Your task to perform on an android device: Open accessibility settings Image 0: 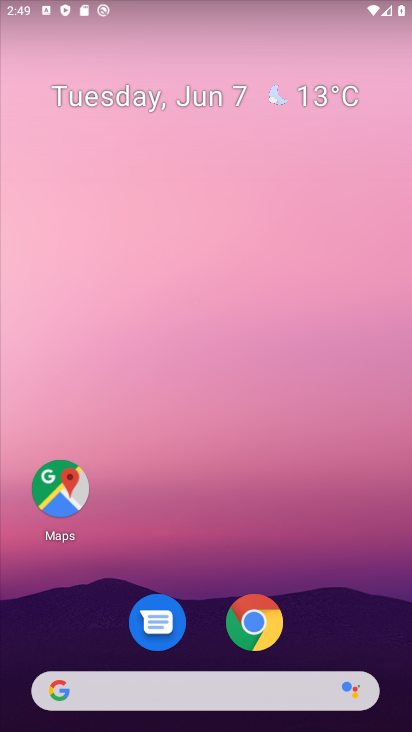
Step 0: drag from (373, 644) to (408, 104)
Your task to perform on an android device: Open accessibility settings Image 1: 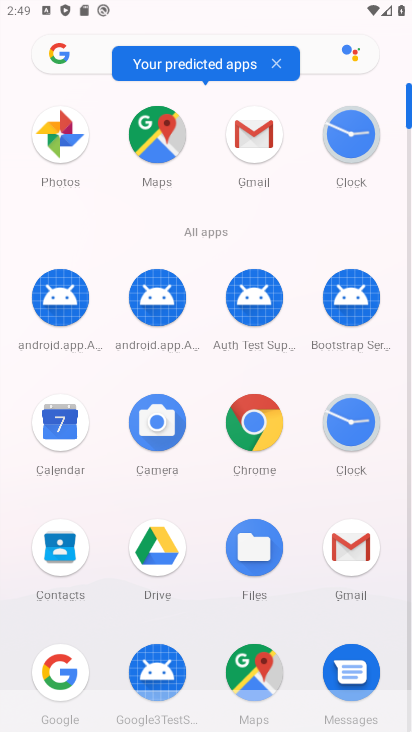
Step 1: click (405, 246)
Your task to perform on an android device: Open accessibility settings Image 2: 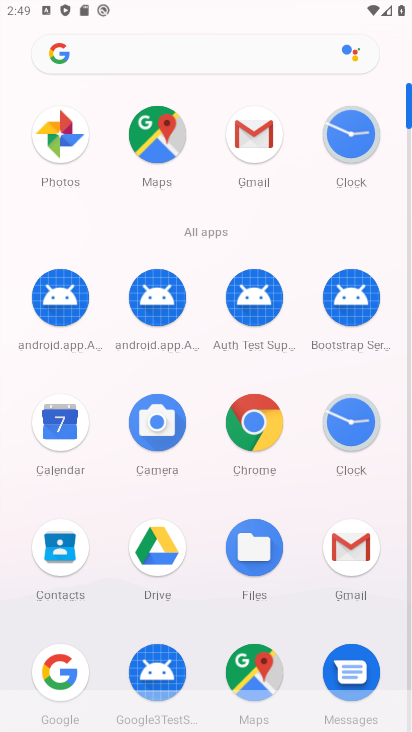
Step 2: click (405, 246)
Your task to perform on an android device: Open accessibility settings Image 3: 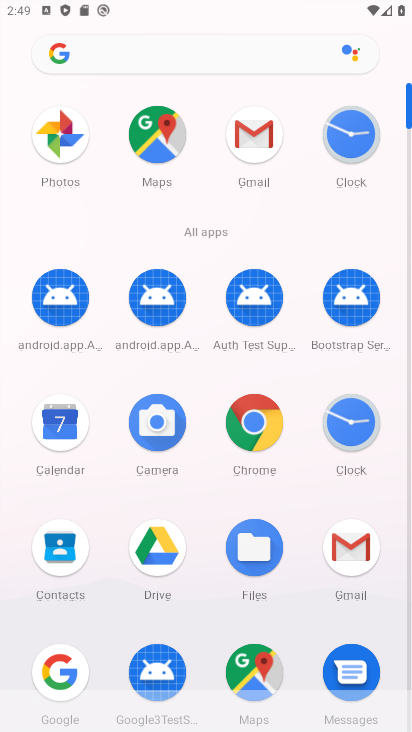
Step 3: click (407, 283)
Your task to perform on an android device: Open accessibility settings Image 4: 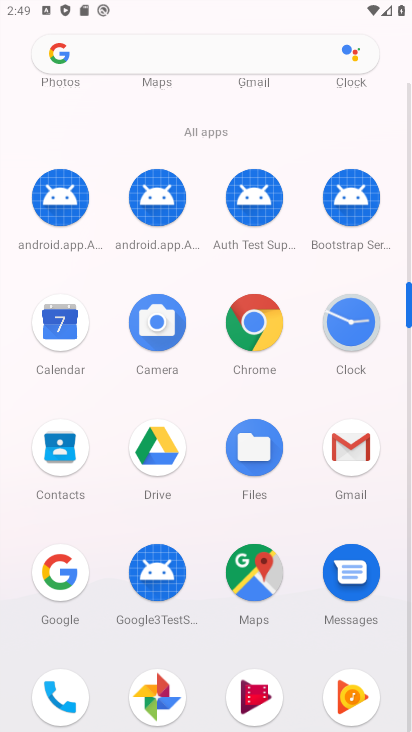
Step 4: click (408, 515)
Your task to perform on an android device: Open accessibility settings Image 5: 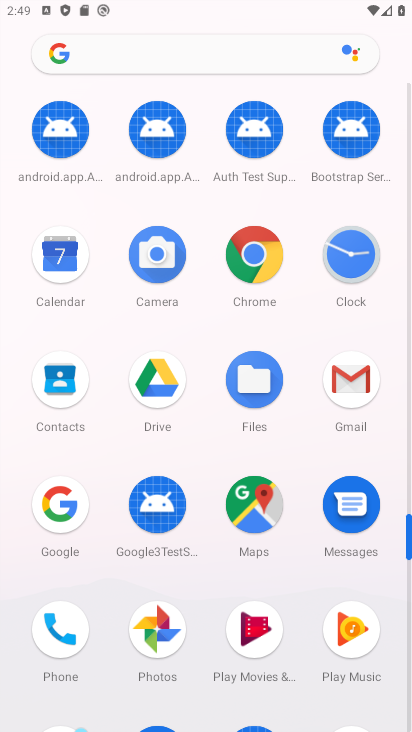
Step 5: click (405, 665)
Your task to perform on an android device: Open accessibility settings Image 6: 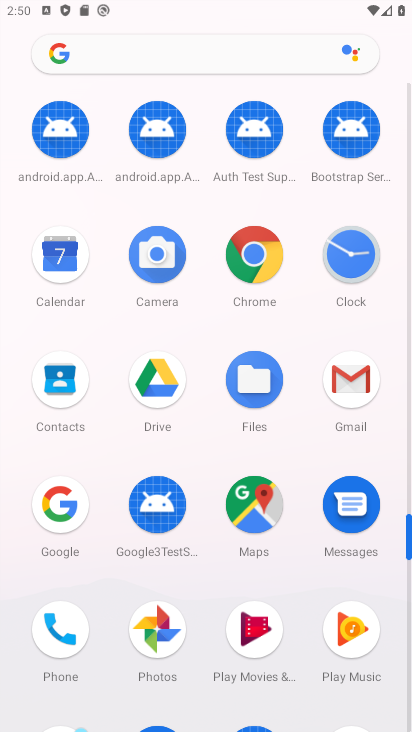
Step 6: click (408, 672)
Your task to perform on an android device: Open accessibility settings Image 7: 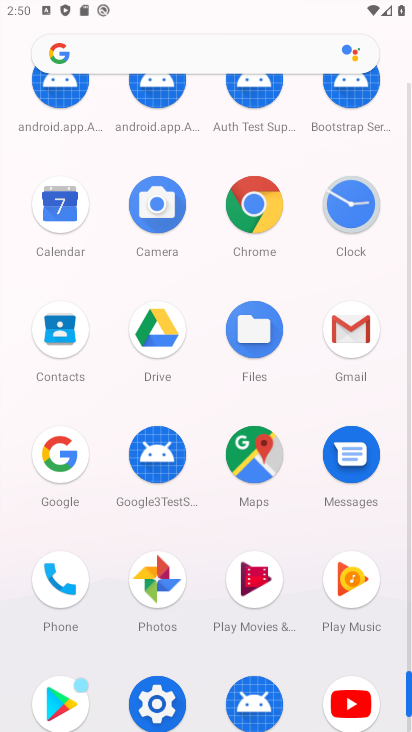
Step 7: click (408, 672)
Your task to perform on an android device: Open accessibility settings Image 8: 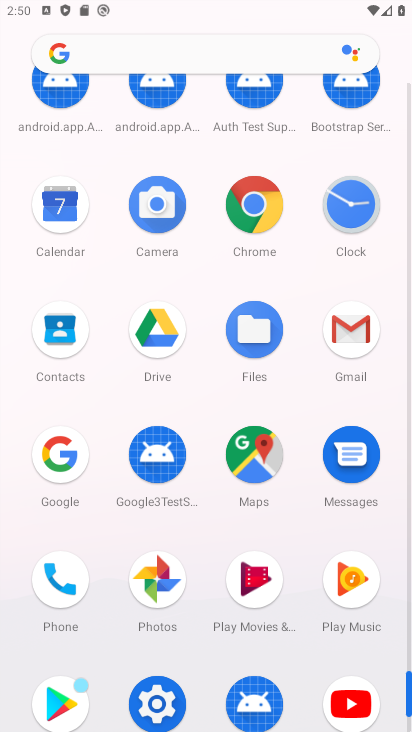
Step 8: click (155, 709)
Your task to perform on an android device: Open accessibility settings Image 9: 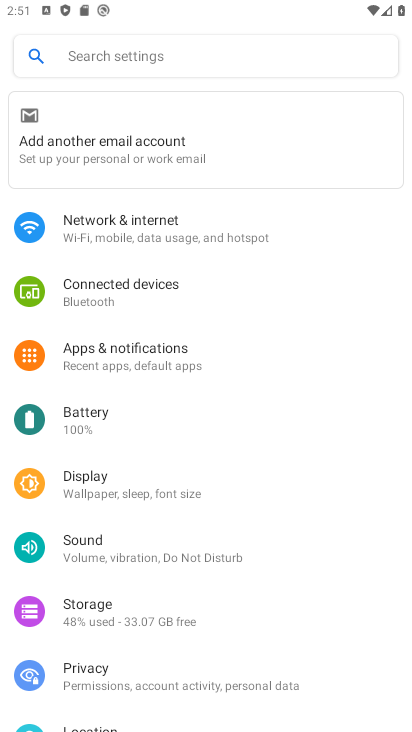
Step 9: drag from (204, 504) to (228, 151)
Your task to perform on an android device: Open accessibility settings Image 10: 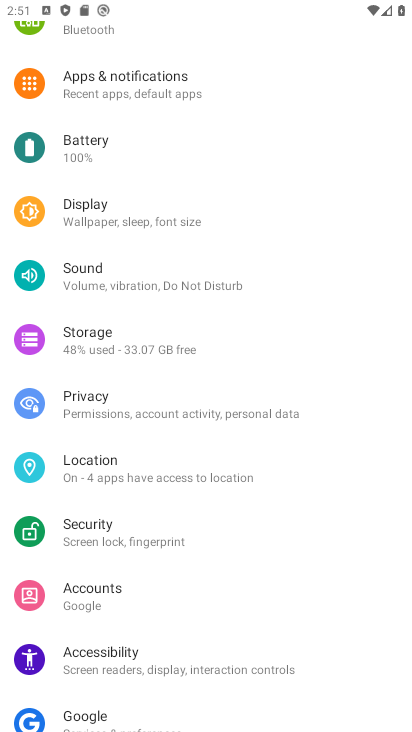
Step 10: click (126, 657)
Your task to perform on an android device: Open accessibility settings Image 11: 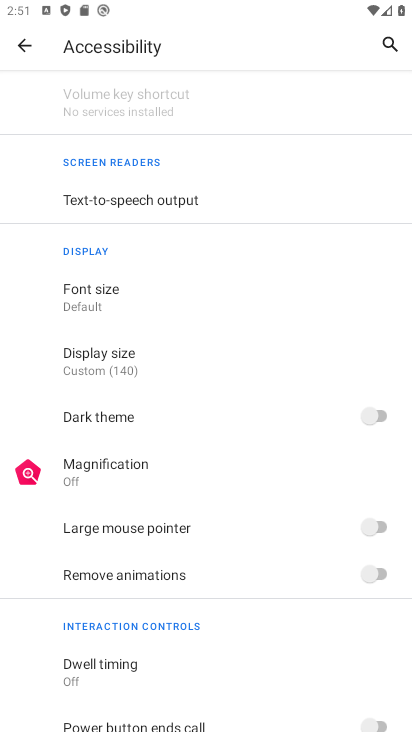
Step 11: task complete